Your task to perform on an android device: open the mobile data screen to see how much data has been used Image 0: 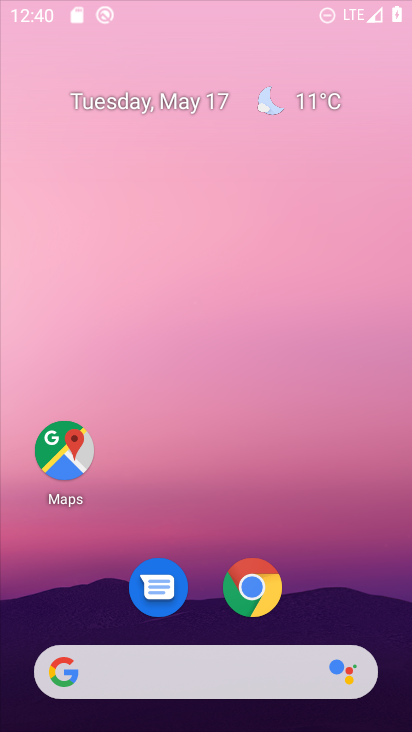
Step 0: click (218, 228)
Your task to perform on an android device: open the mobile data screen to see how much data has been used Image 1: 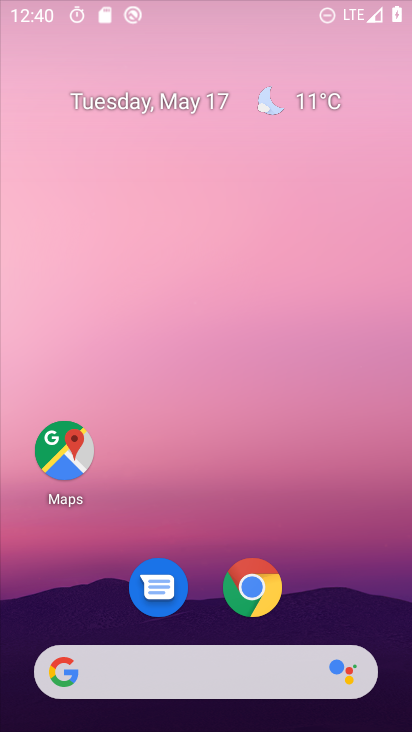
Step 1: drag from (197, 631) to (265, 225)
Your task to perform on an android device: open the mobile data screen to see how much data has been used Image 2: 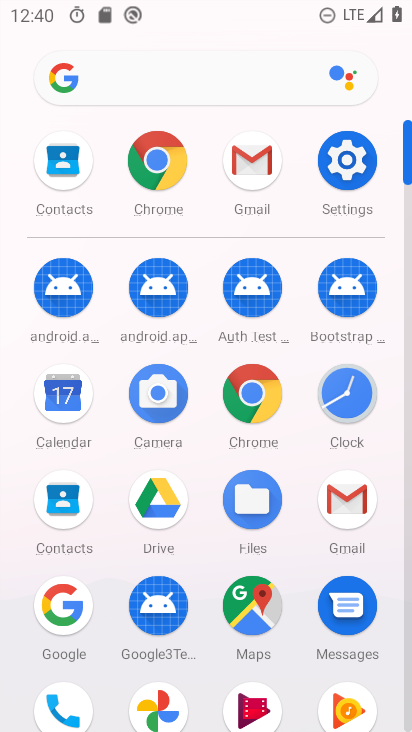
Step 2: drag from (201, 679) to (196, 287)
Your task to perform on an android device: open the mobile data screen to see how much data has been used Image 3: 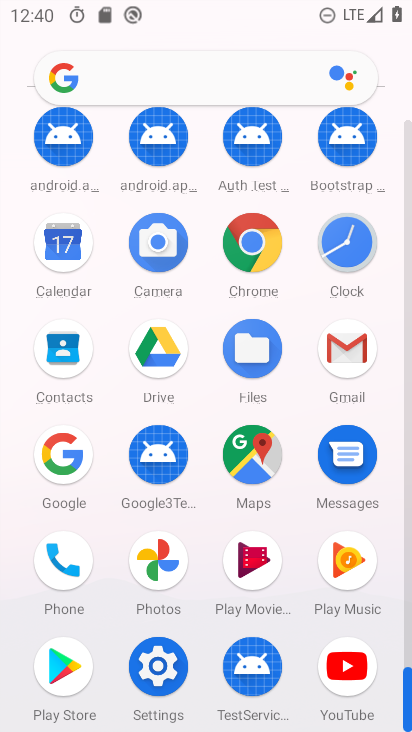
Step 3: drag from (206, 162) to (171, 620)
Your task to perform on an android device: open the mobile data screen to see how much data has been used Image 4: 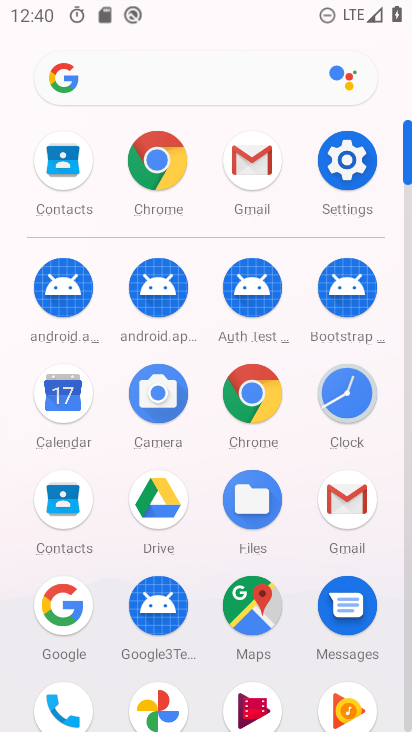
Step 4: click (350, 151)
Your task to perform on an android device: open the mobile data screen to see how much data has been used Image 5: 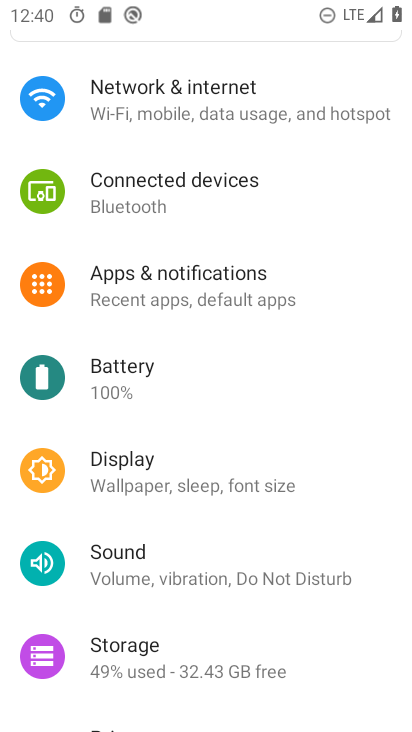
Step 5: drag from (202, 218) to (276, 703)
Your task to perform on an android device: open the mobile data screen to see how much data has been used Image 6: 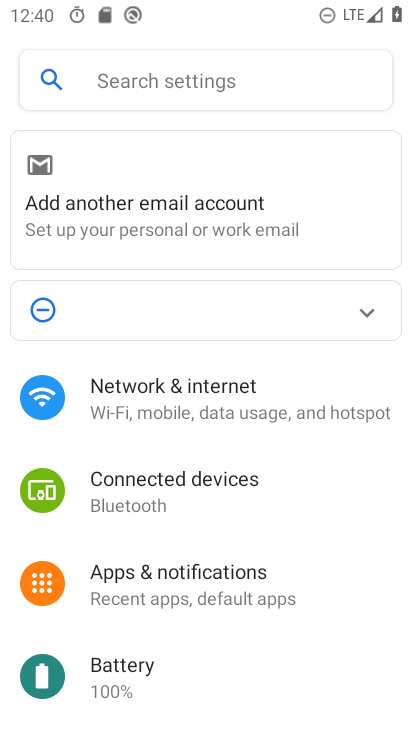
Step 6: drag from (241, 448) to (346, 58)
Your task to perform on an android device: open the mobile data screen to see how much data has been used Image 7: 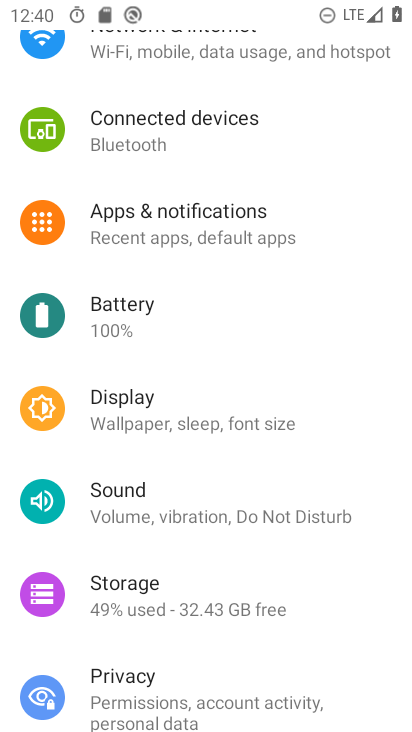
Step 7: drag from (219, 108) to (206, 332)
Your task to perform on an android device: open the mobile data screen to see how much data has been used Image 8: 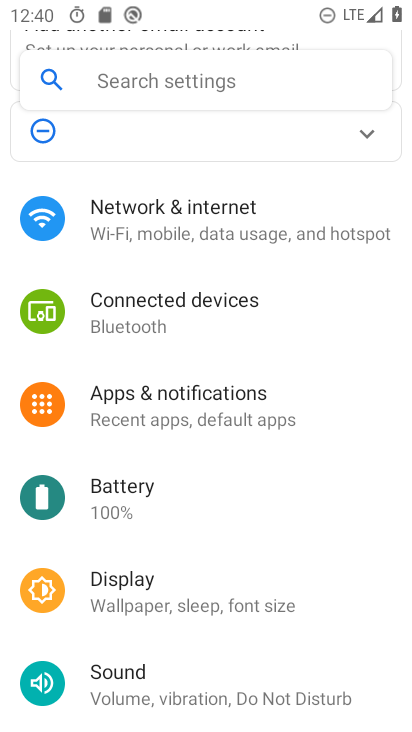
Step 8: click (208, 219)
Your task to perform on an android device: open the mobile data screen to see how much data has been used Image 9: 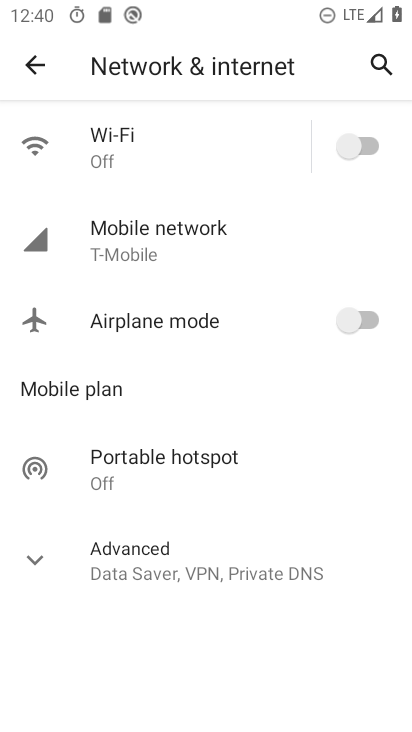
Step 9: click (186, 237)
Your task to perform on an android device: open the mobile data screen to see how much data has been used Image 10: 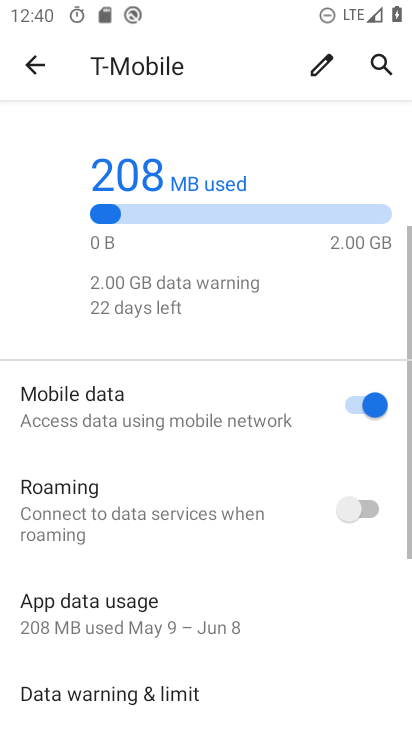
Step 10: task complete